Your task to perform on an android device: allow notifications from all sites in the chrome app Image 0: 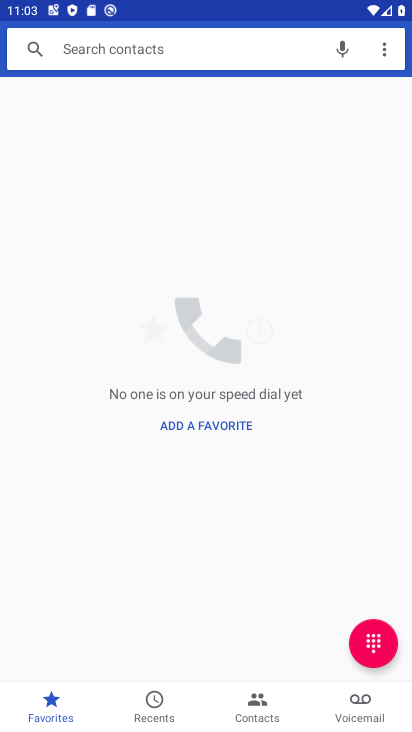
Step 0: press home button
Your task to perform on an android device: allow notifications from all sites in the chrome app Image 1: 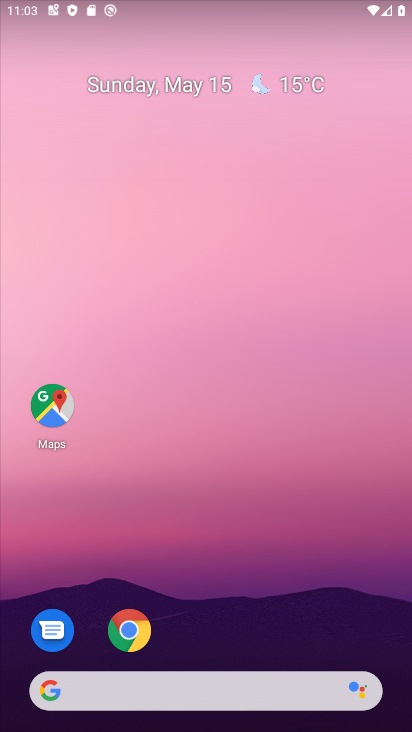
Step 1: click (126, 627)
Your task to perform on an android device: allow notifications from all sites in the chrome app Image 2: 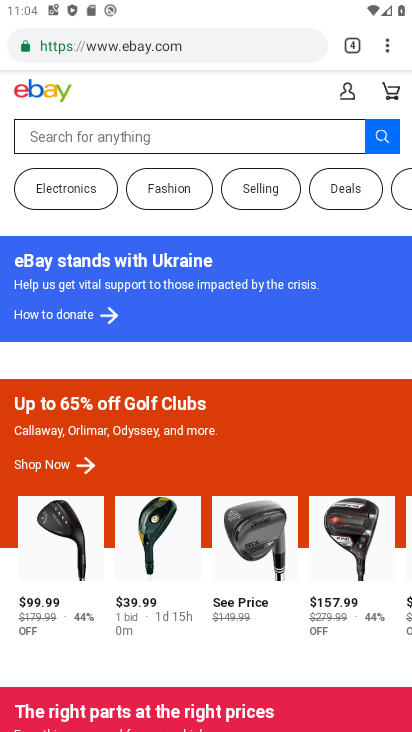
Step 2: click (385, 48)
Your task to perform on an android device: allow notifications from all sites in the chrome app Image 3: 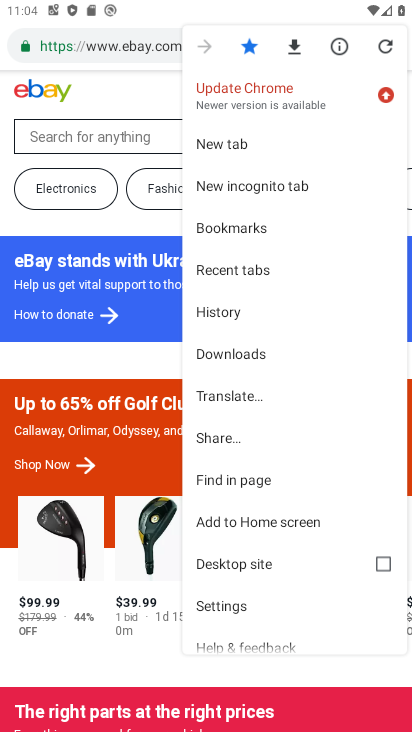
Step 3: click (225, 604)
Your task to perform on an android device: allow notifications from all sites in the chrome app Image 4: 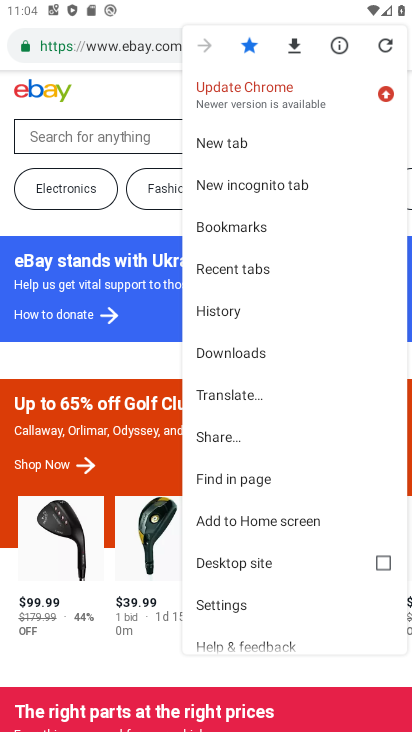
Step 4: click (258, 603)
Your task to perform on an android device: allow notifications from all sites in the chrome app Image 5: 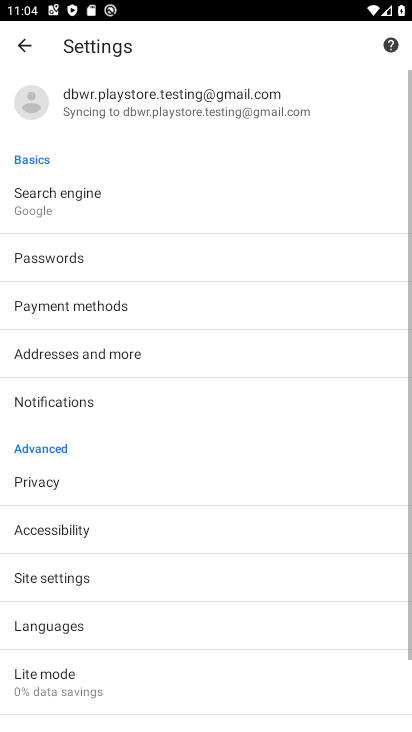
Step 5: drag from (112, 631) to (117, 340)
Your task to perform on an android device: allow notifications from all sites in the chrome app Image 6: 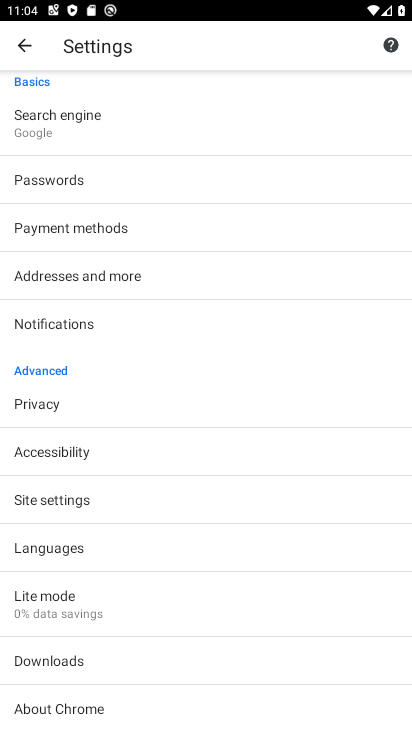
Step 6: click (54, 494)
Your task to perform on an android device: allow notifications from all sites in the chrome app Image 7: 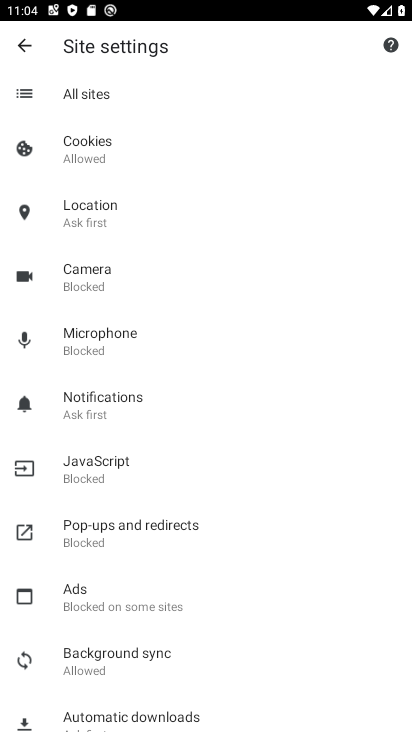
Step 7: click (117, 398)
Your task to perform on an android device: allow notifications from all sites in the chrome app Image 8: 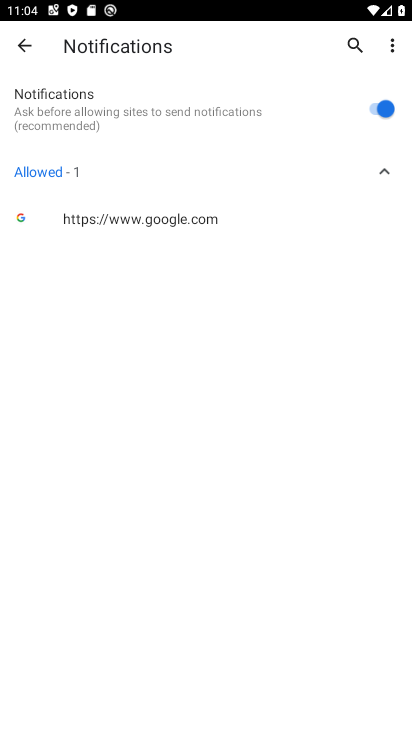
Step 8: task complete